Your task to perform on an android device: turn off improve location accuracy Image 0: 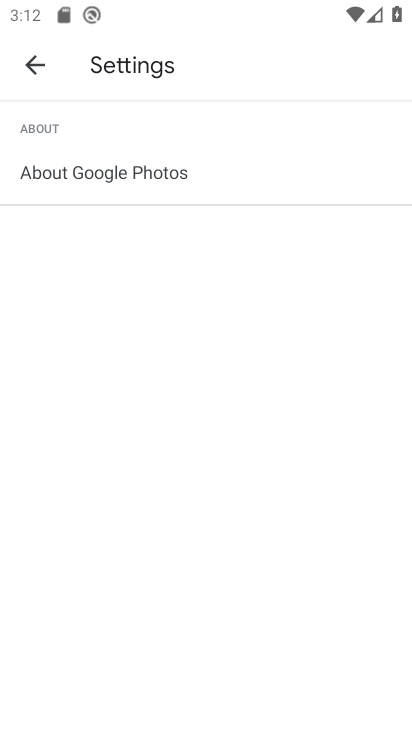
Step 0: press home button
Your task to perform on an android device: turn off improve location accuracy Image 1: 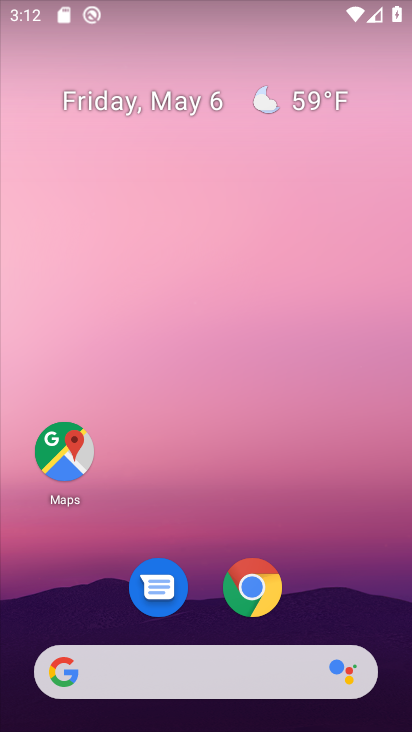
Step 1: drag from (219, 486) to (219, 30)
Your task to perform on an android device: turn off improve location accuracy Image 2: 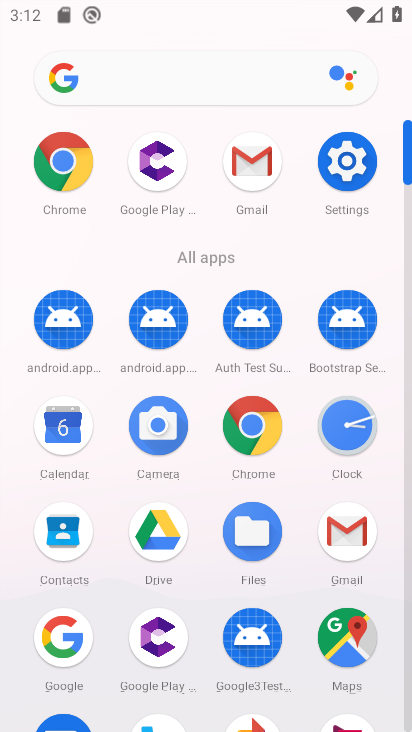
Step 2: click (344, 160)
Your task to perform on an android device: turn off improve location accuracy Image 3: 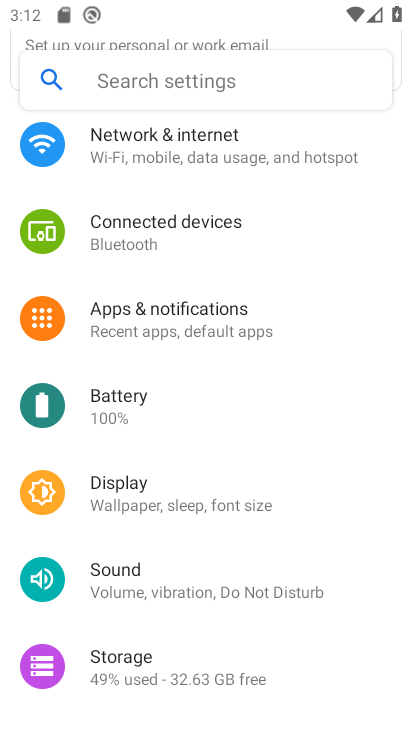
Step 3: drag from (234, 642) to (307, 331)
Your task to perform on an android device: turn off improve location accuracy Image 4: 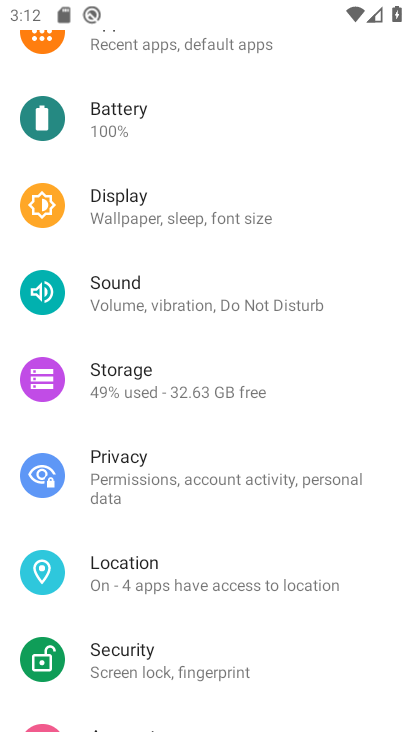
Step 4: click (198, 571)
Your task to perform on an android device: turn off improve location accuracy Image 5: 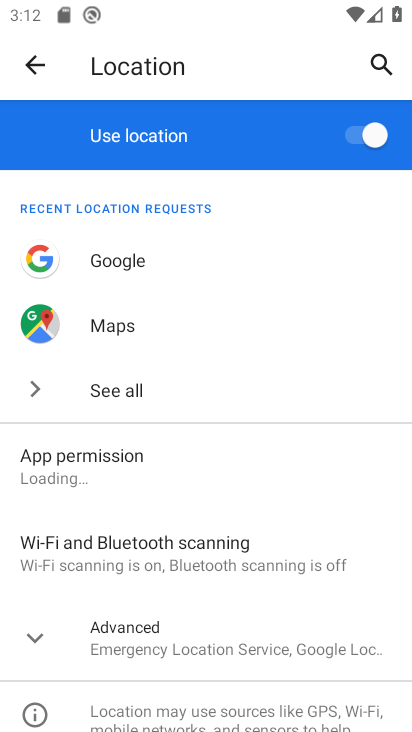
Step 5: click (33, 629)
Your task to perform on an android device: turn off improve location accuracy Image 6: 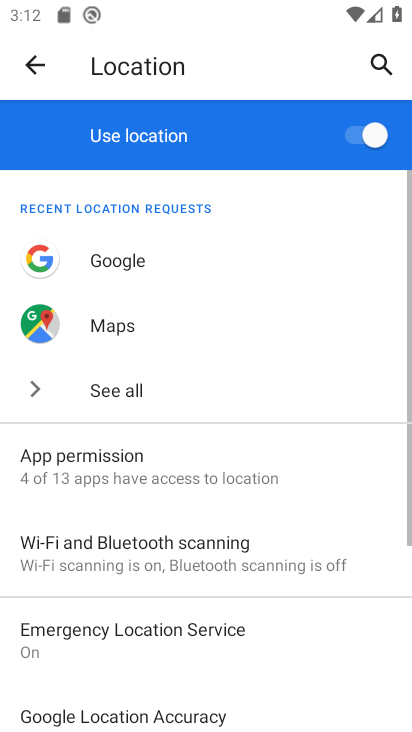
Step 6: drag from (256, 618) to (296, 365)
Your task to perform on an android device: turn off improve location accuracy Image 7: 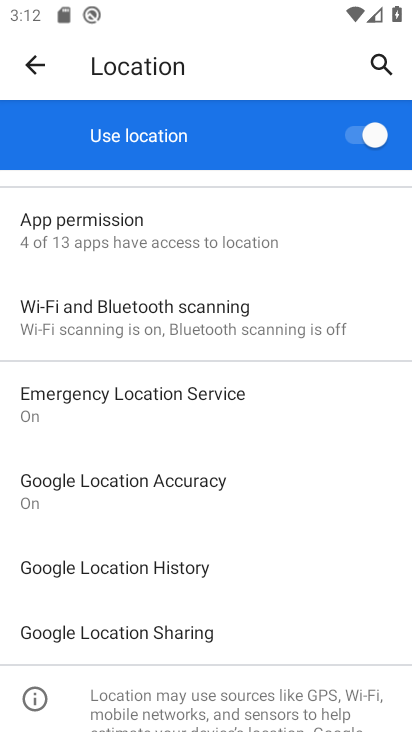
Step 7: click (182, 494)
Your task to perform on an android device: turn off improve location accuracy Image 8: 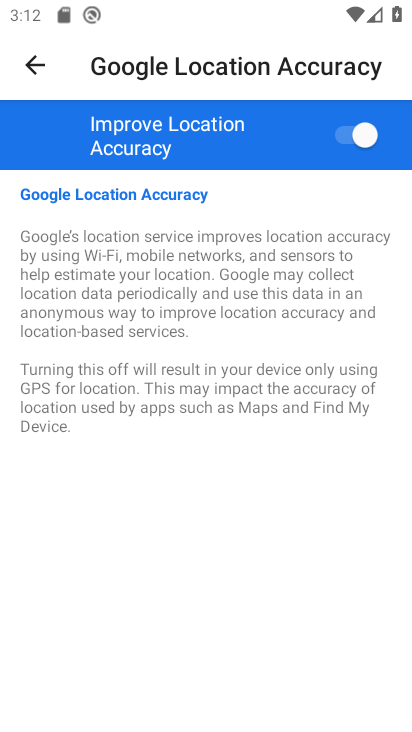
Step 8: click (346, 129)
Your task to perform on an android device: turn off improve location accuracy Image 9: 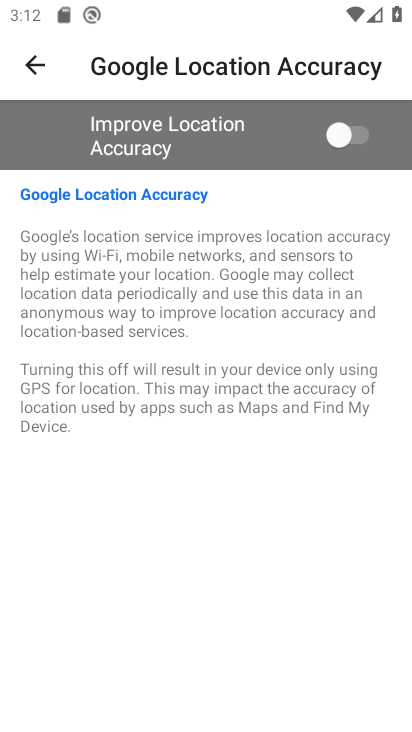
Step 9: task complete